Your task to perform on an android device: Open the stopwatch Image 0: 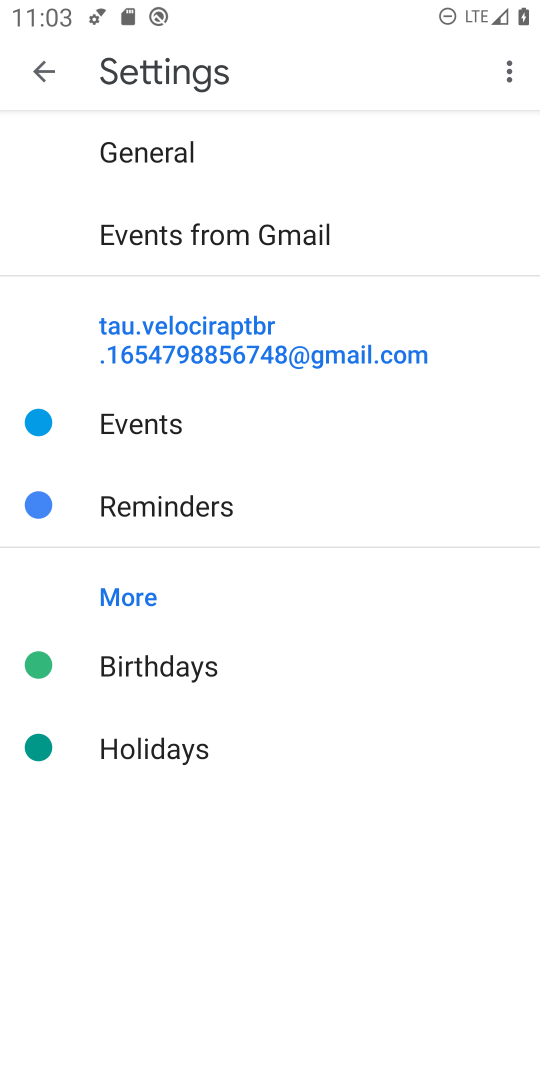
Step 0: press home button
Your task to perform on an android device: Open the stopwatch Image 1: 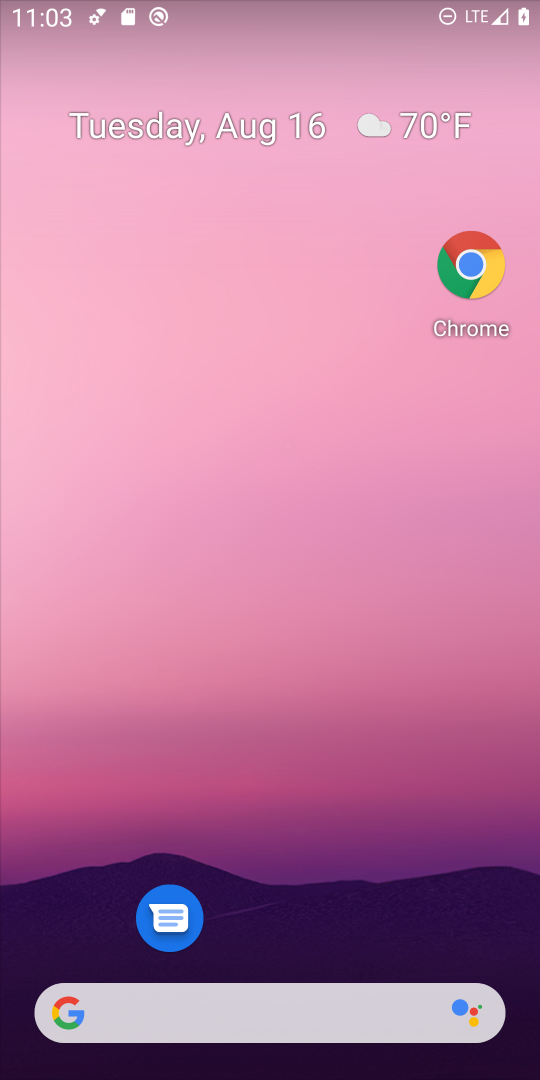
Step 1: drag from (417, 557) to (524, 137)
Your task to perform on an android device: Open the stopwatch Image 2: 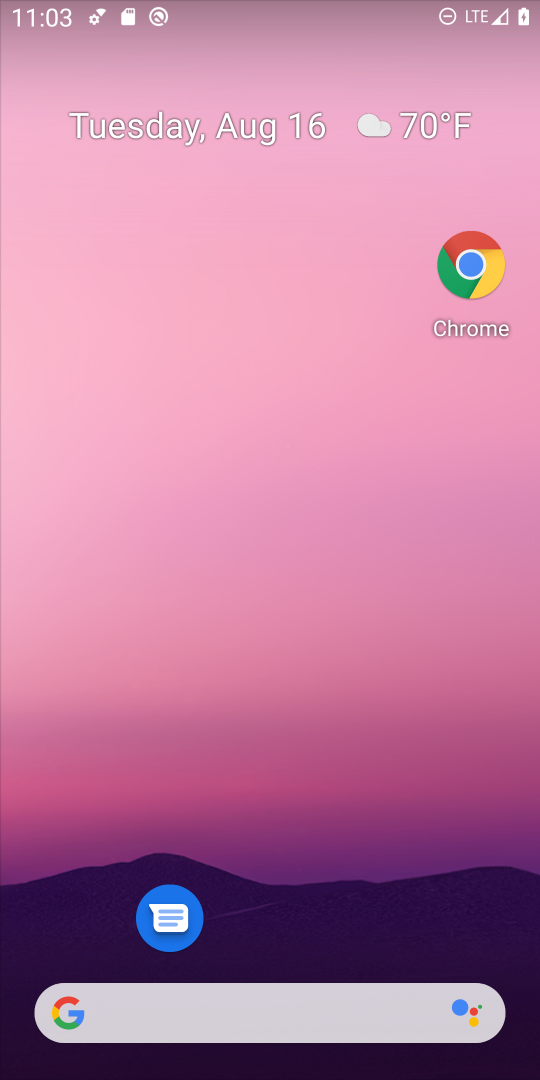
Step 2: drag from (393, 792) to (539, 231)
Your task to perform on an android device: Open the stopwatch Image 3: 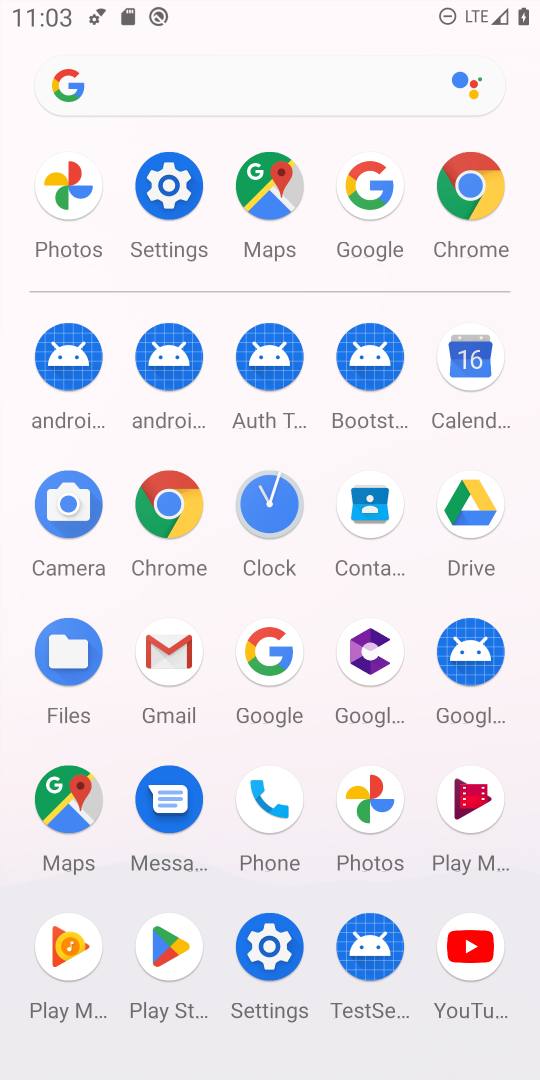
Step 3: click (295, 514)
Your task to perform on an android device: Open the stopwatch Image 4: 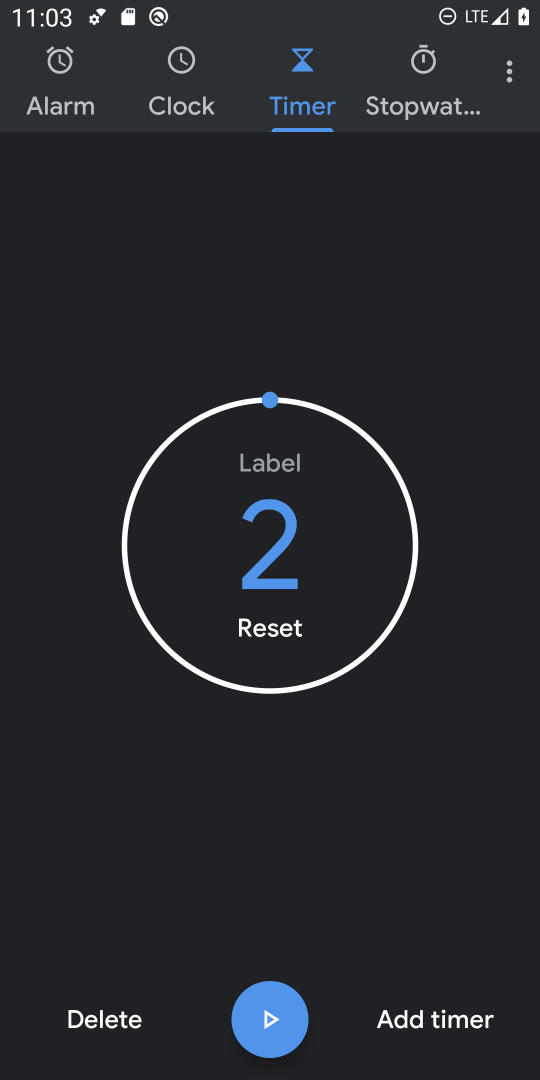
Step 4: click (443, 92)
Your task to perform on an android device: Open the stopwatch Image 5: 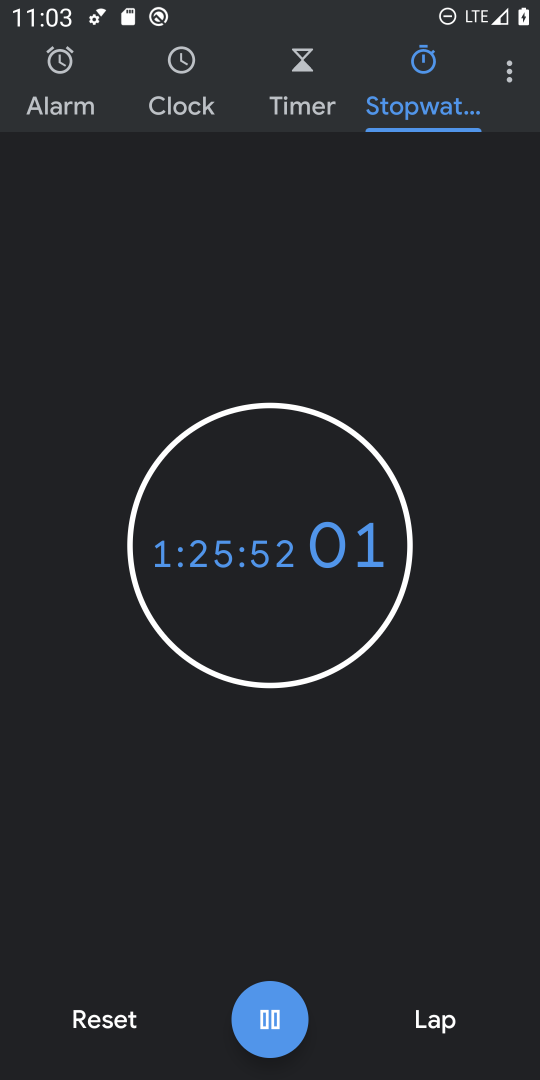
Step 5: task complete